Your task to perform on an android device: add a label to a message in the gmail app Image 0: 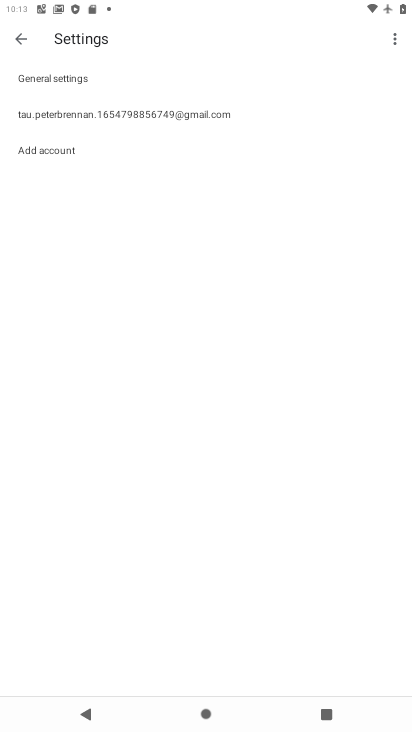
Step 0: press home button
Your task to perform on an android device: add a label to a message in the gmail app Image 1: 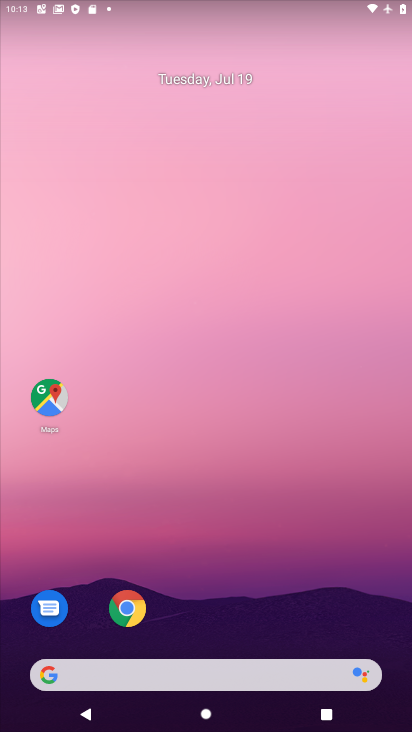
Step 1: drag from (360, 567) to (381, 124)
Your task to perform on an android device: add a label to a message in the gmail app Image 2: 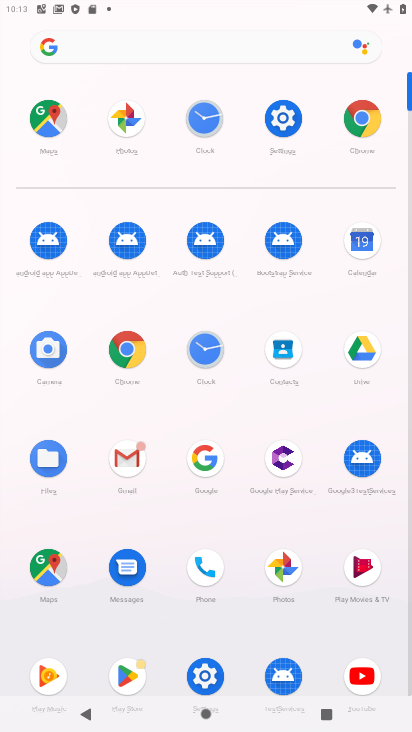
Step 2: click (130, 455)
Your task to perform on an android device: add a label to a message in the gmail app Image 3: 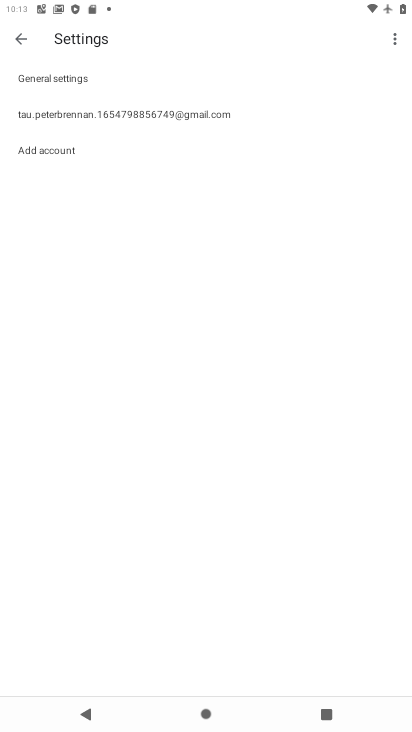
Step 3: click (22, 35)
Your task to perform on an android device: add a label to a message in the gmail app Image 4: 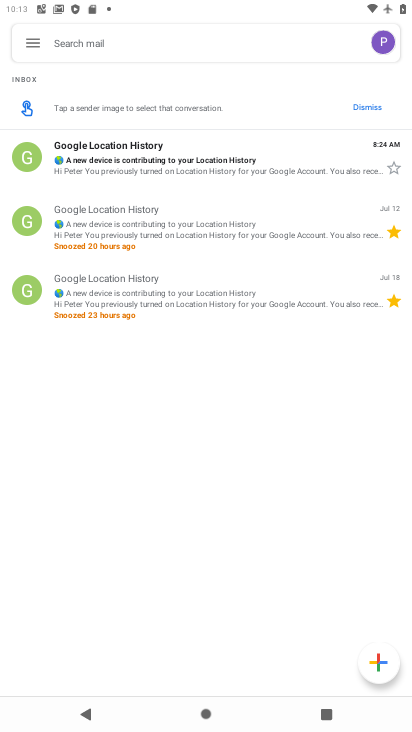
Step 4: click (36, 44)
Your task to perform on an android device: add a label to a message in the gmail app Image 5: 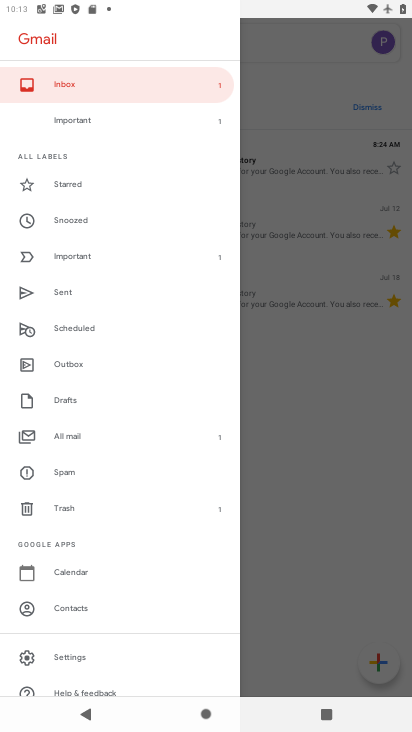
Step 5: drag from (106, 631) to (109, 179)
Your task to perform on an android device: add a label to a message in the gmail app Image 6: 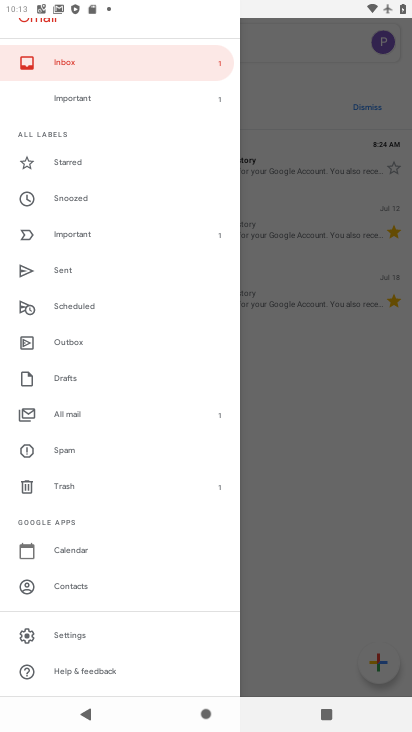
Step 6: click (327, 182)
Your task to perform on an android device: add a label to a message in the gmail app Image 7: 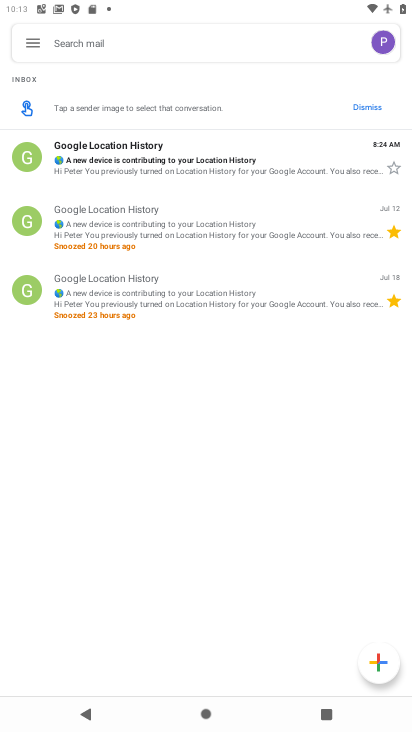
Step 7: click (254, 227)
Your task to perform on an android device: add a label to a message in the gmail app Image 8: 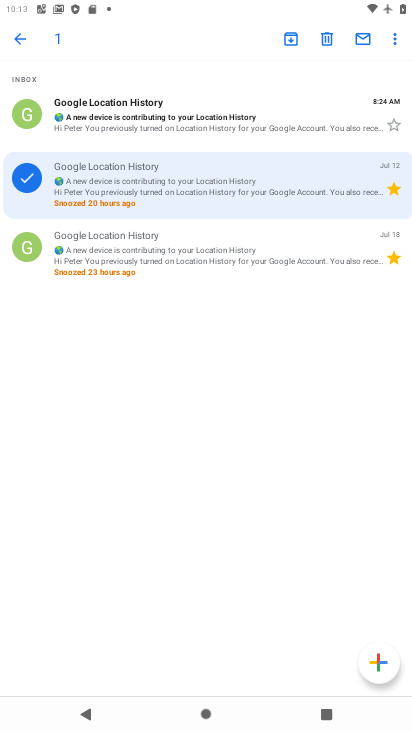
Step 8: click (395, 37)
Your task to perform on an android device: add a label to a message in the gmail app Image 9: 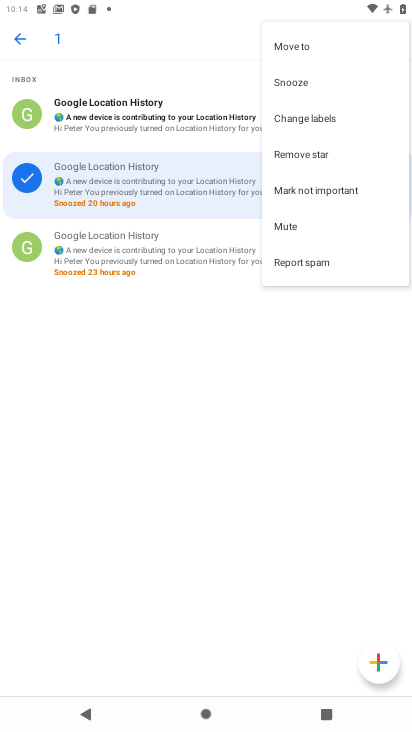
Step 9: task complete